Your task to perform on an android device: turn off airplane mode Image 0: 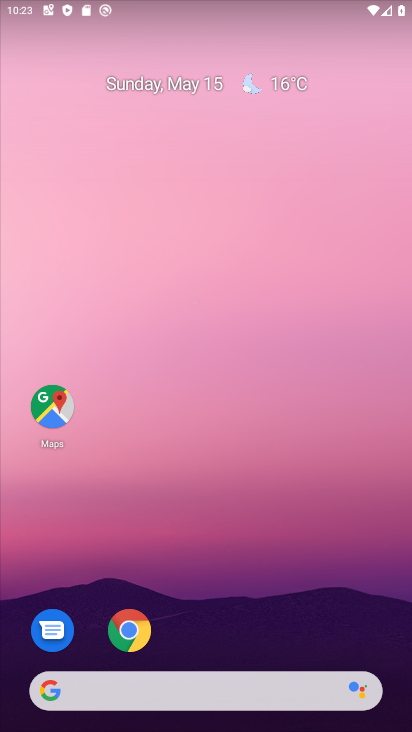
Step 0: drag from (212, 627) to (219, 227)
Your task to perform on an android device: turn off airplane mode Image 1: 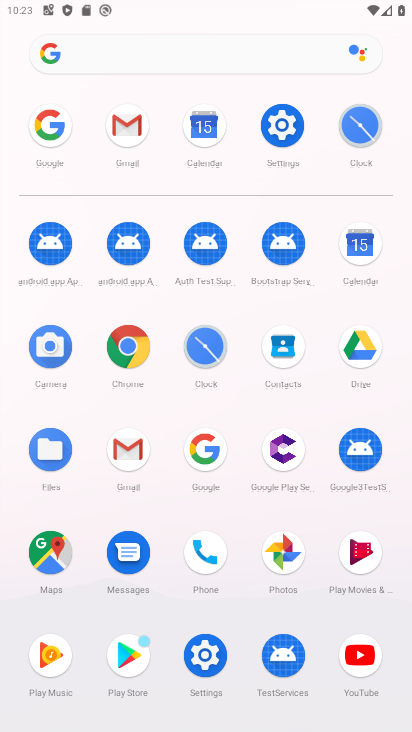
Step 1: click (293, 138)
Your task to perform on an android device: turn off airplane mode Image 2: 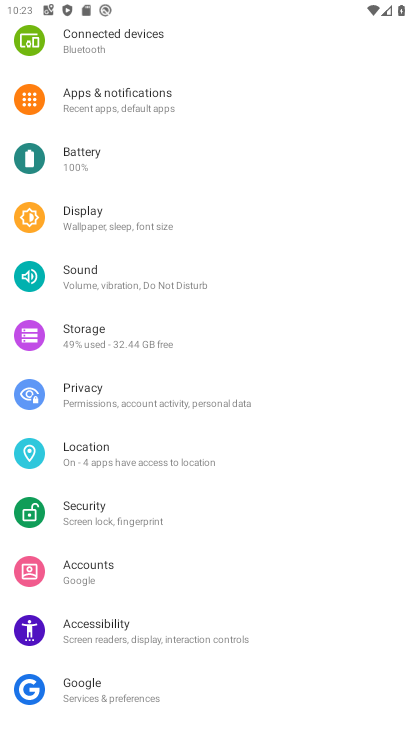
Step 2: drag from (159, 101) to (176, 457)
Your task to perform on an android device: turn off airplane mode Image 3: 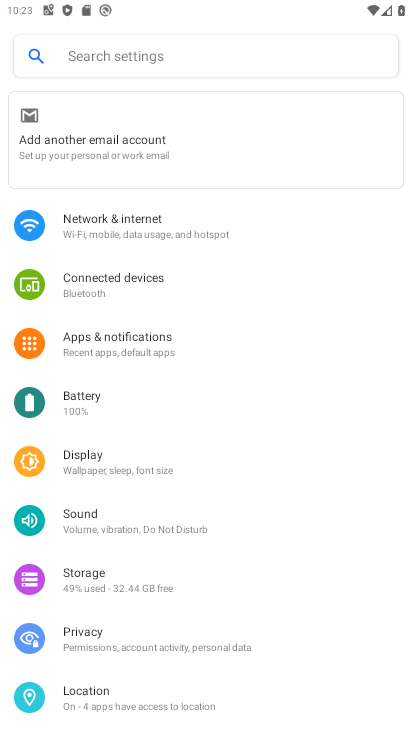
Step 3: click (151, 230)
Your task to perform on an android device: turn off airplane mode Image 4: 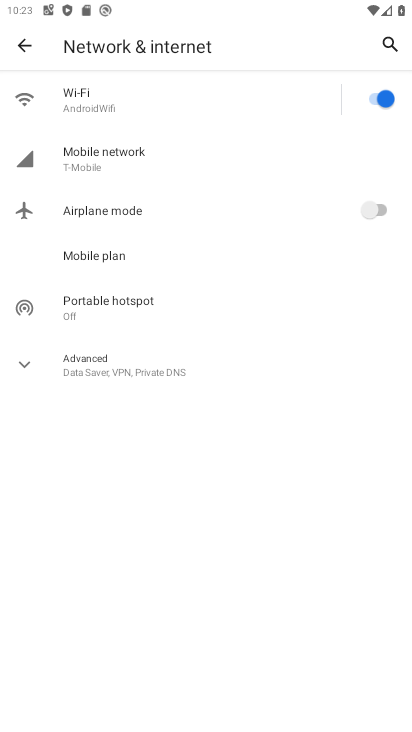
Step 4: task complete